Your task to perform on an android device: turn on translation in the chrome app Image 0: 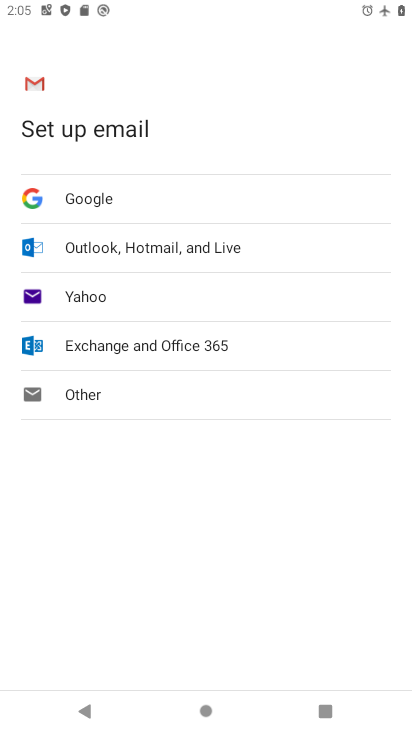
Step 0: drag from (151, 620) to (167, 324)
Your task to perform on an android device: turn on translation in the chrome app Image 1: 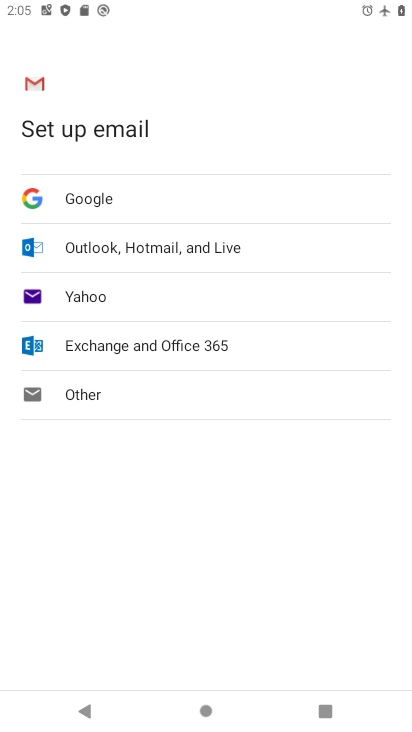
Step 1: drag from (211, 500) to (199, 233)
Your task to perform on an android device: turn on translation in the chrome app Image 2: 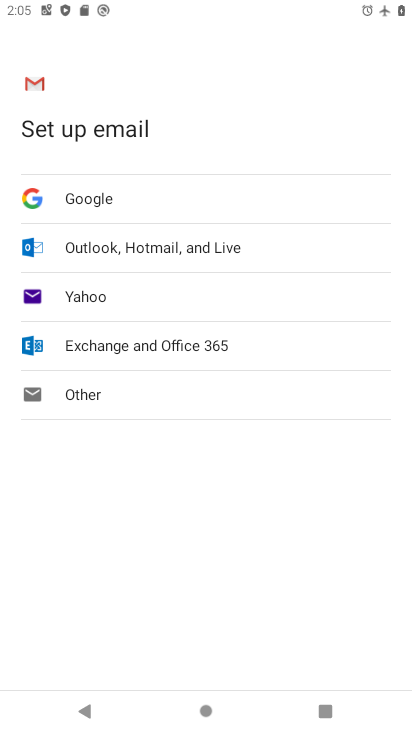
Step 2: drag from (136, 499) to (142, 157)
Your task to perform on an android device: turn on translation in the chrome app Image 3: 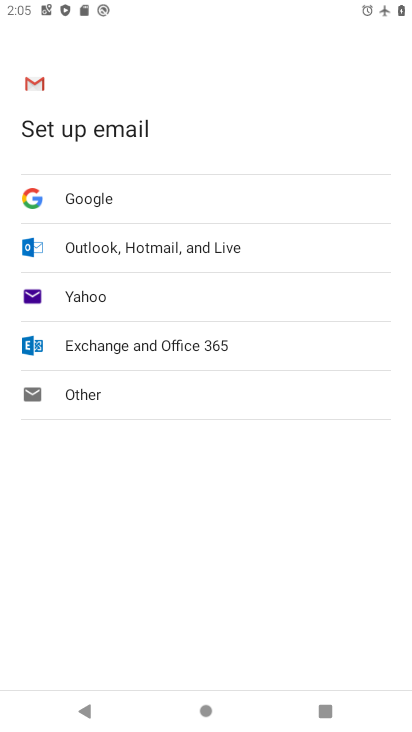
Step 3: drag from (174, 602) to (203, 192)
Your task to perform on an android device: turn on translation in the chrome app Image 4: 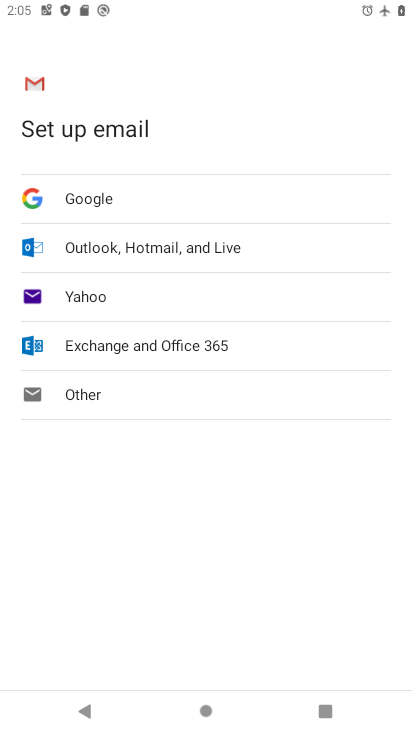
Step 4: press home button
Your task to perform on an android device: turn on translation in the chrome app Image 5: 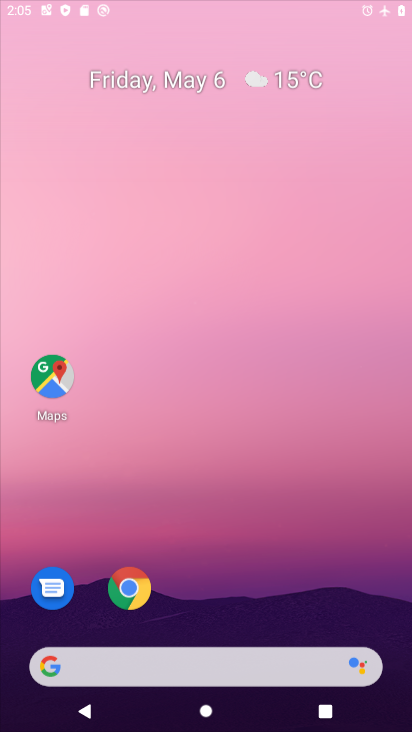
Step 5: drag from (227, 568) to (178, 125)
Your task to perform on an android device: turn on translation in the chrome app Image 6: 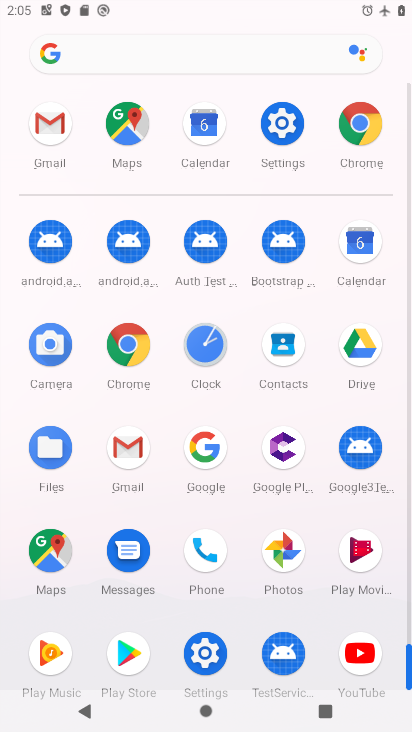
Step 6: drag from (217, 609) to (218, 235)
Your task to perform on an android device: turn on translation in the chrome app Image 7: 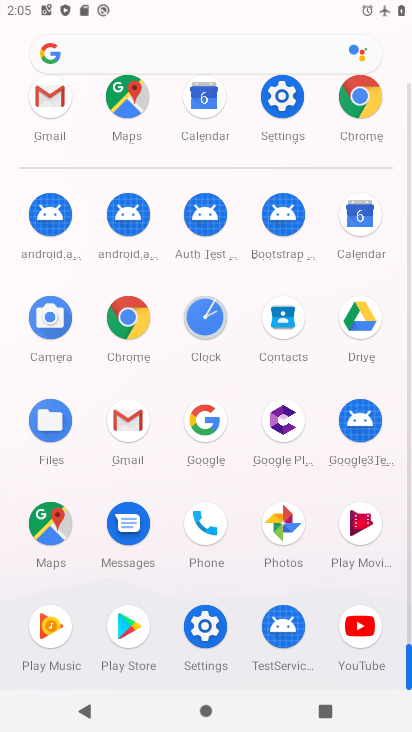
Step 7: click (122, 324)
Your task to perform on an android device: turn on translation in the chrome app Image 8: 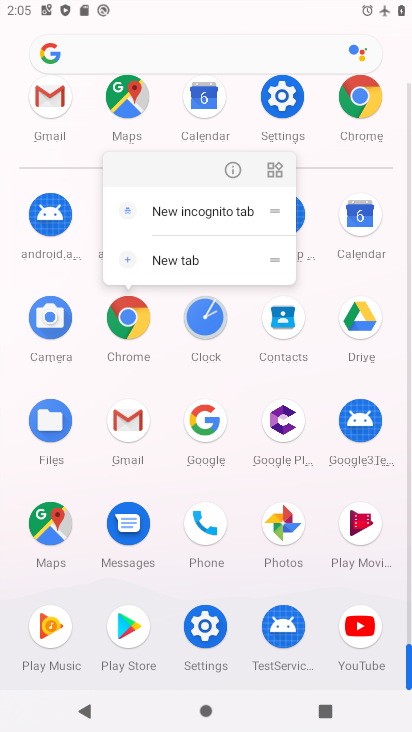
Step 8: click (234, 160)
Your task to perform on an android device: turn on translation in the chrome app Image 9: 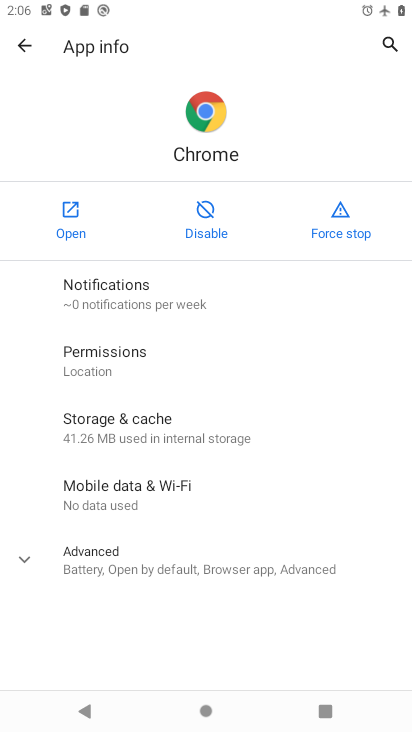
Step 9: click (67, 235)
Your task to perform on an android device: turn on translation in the chrome app Image 10: 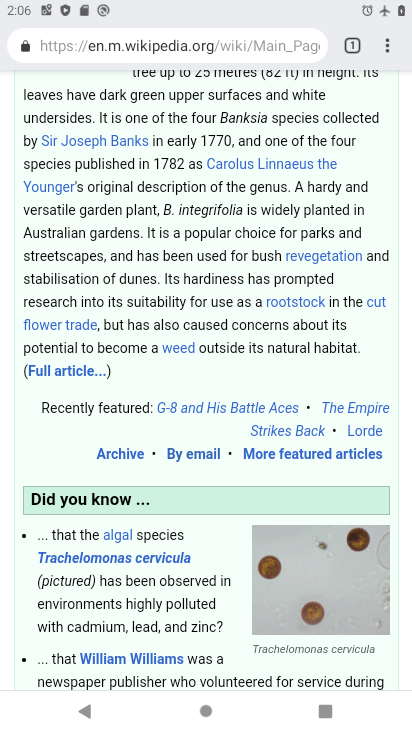
Step 10: drag from (191, 574) to (188, 313)
Your task to perform on an android device: turn on translation in the chrome app Image 11: 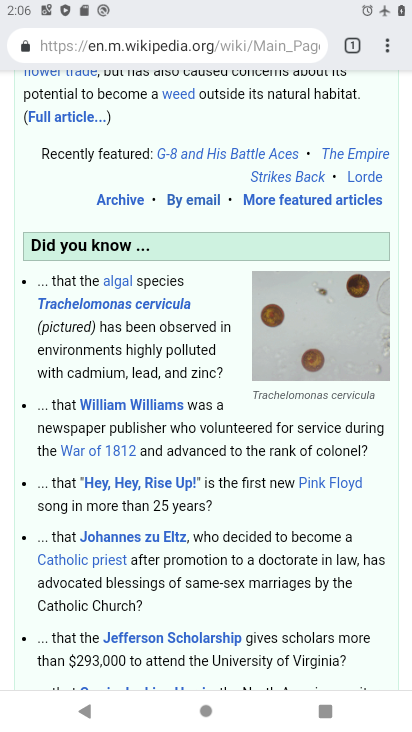
Step 11: drag from (226, 617) to (213, 231)
Your task to perform on an android device: turn on translation in the chrome app Image 12: 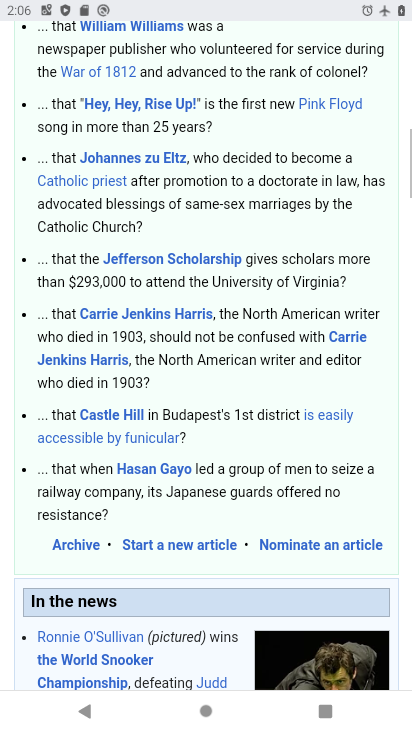
Step 12: drag from (207, 192) to (253, 729)
Your task to perform on an android device: turn on translation in the chrome app Image 13: 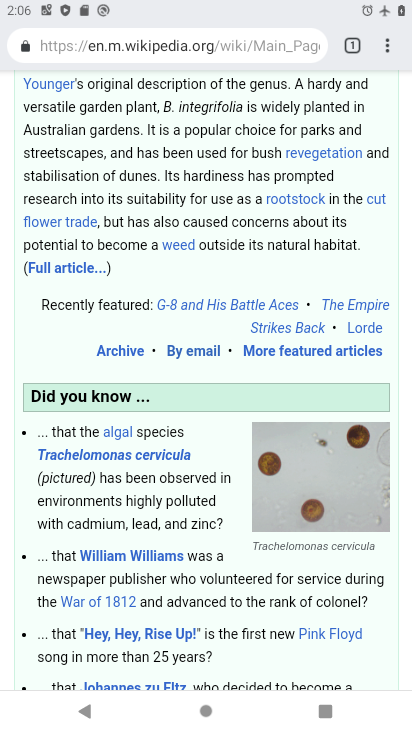
Step 13: click (372, 48)
Your task to perform on an android device: turn on translation in the chrome app Image 14: 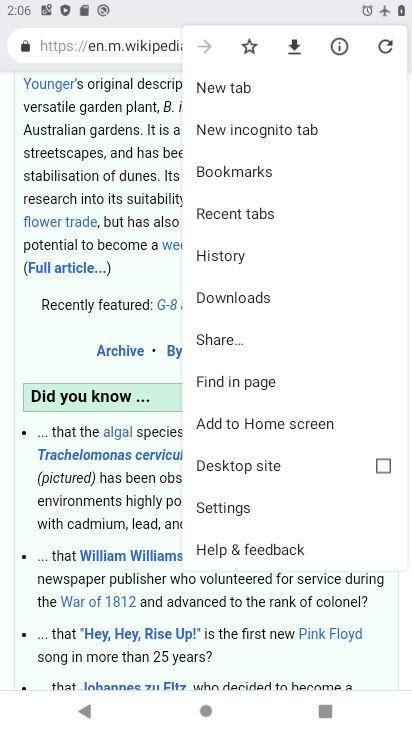
Step 14: drag from (311, 508) to (313, 222)
Your task to perform on an android device: turn on translation in the chrome app Image 15: 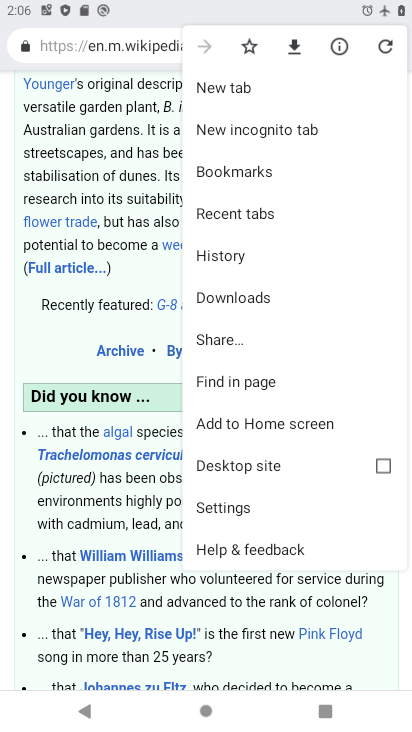
Step 15: click (257, 514)
Your task to perform on an android device: turn on translation in the chrome app Image 16: 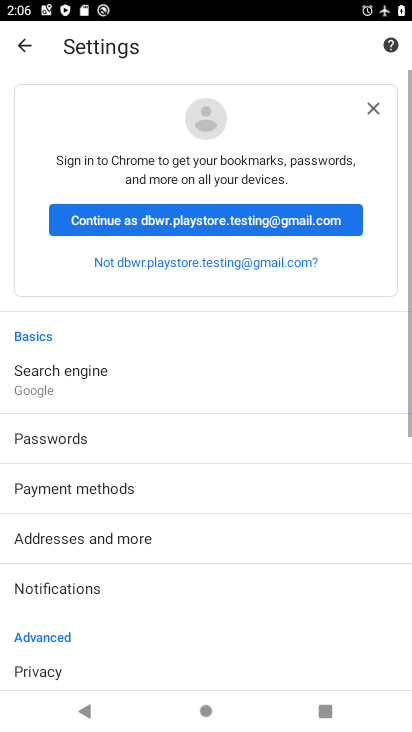
Step 16: drag from (209, 597) to (244, 229)
Your task to perform on an android device: turn on translation in the chrome app Image 17: 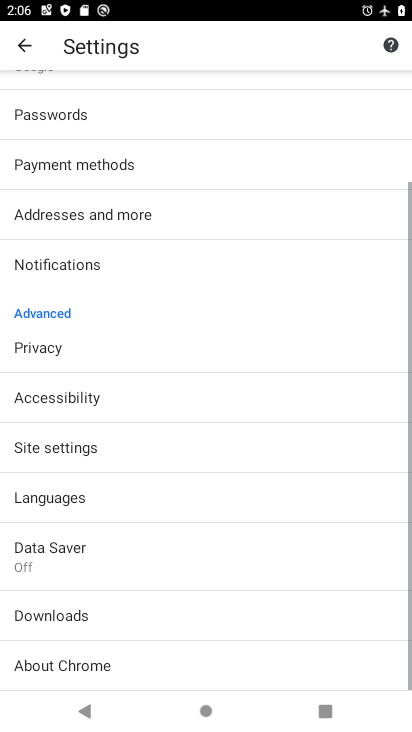
Step 17: drag from (173, 606) to (231, 282)
Your task to perform on an android device: turn on translation in the chrome app Image 18: 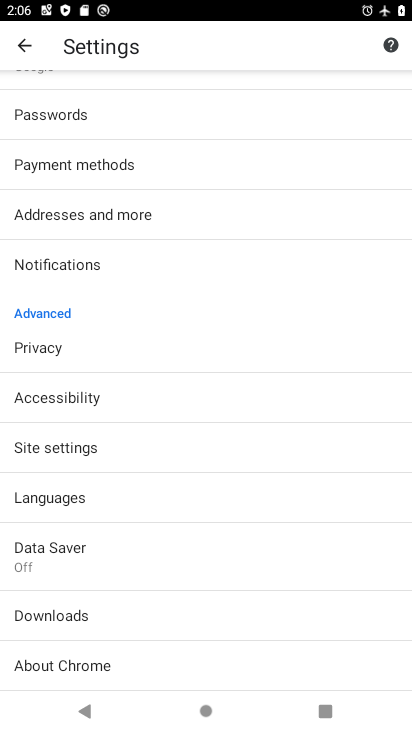
Step 18: click (105, 496)
Your task to perform on an android device: turn on translation in the chrome app Image 19: 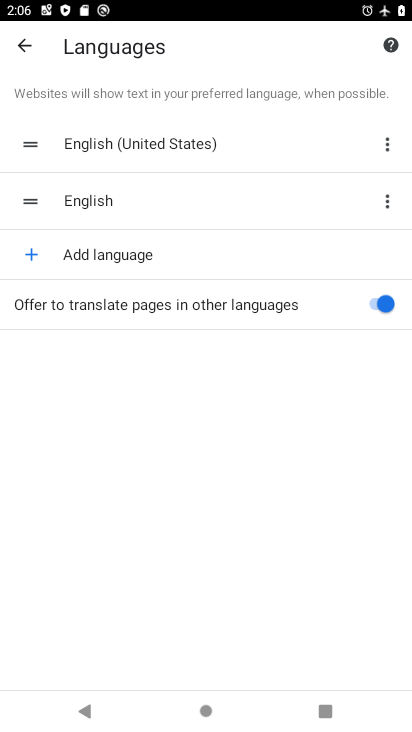
Step 19: task complete